Your task to perform on an android device: Search for sushi restaurants on Maps Image 0: 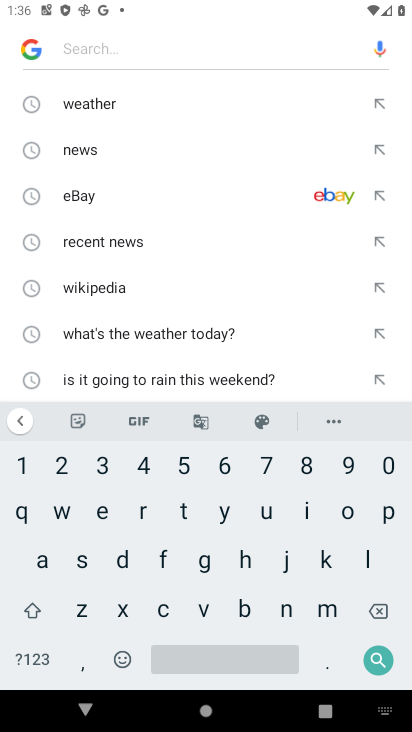
Step 0: press home button
Your task to perform on an android device: Search for sushi restaurants on Maps Image 1: 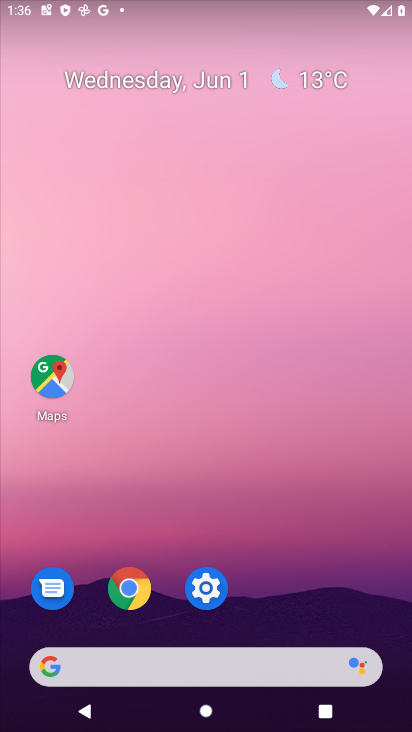
Step 1: click (42, 382)
Your task to perform on an android device: Search for sushi restaurants on Maps Image 2: 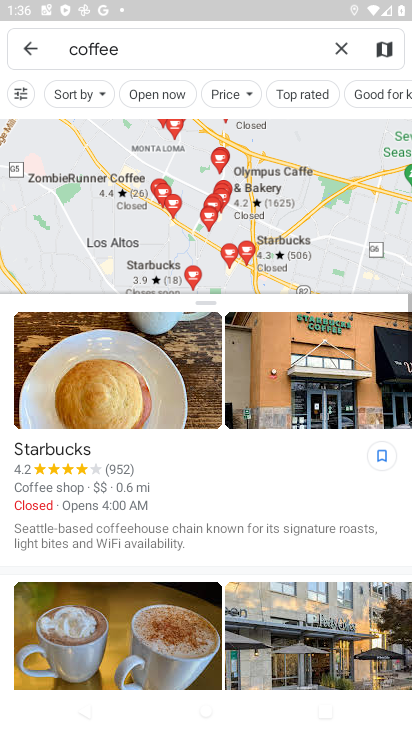
Step 2: click (248, 55)
Your task to perform on an android device: Search for sushi restaurants on Maps Image 3: 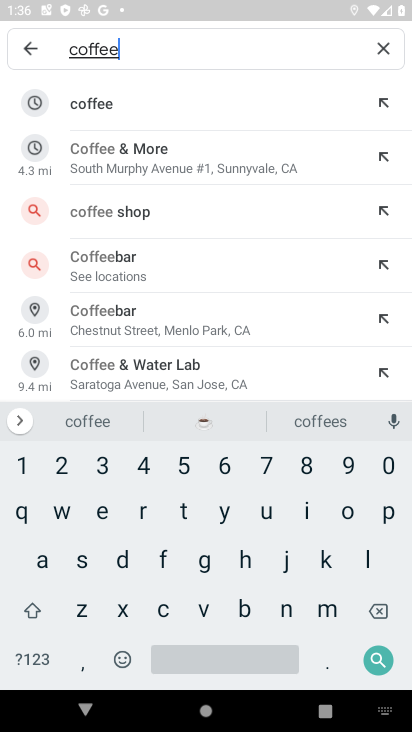
Step 3: click (377, 52)
Your task to perform on an android device: Search for sushi restaurants on Maps Image 4: 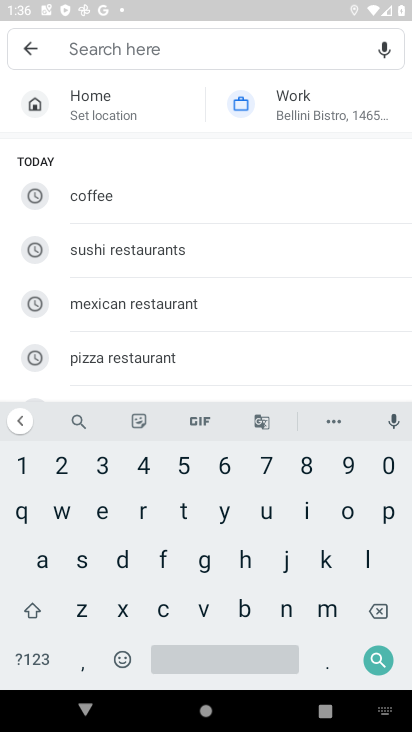
Step 4: click (136, 249)
Your task to perform on an android device: Search for sushi restaurants on Maps Image 5: 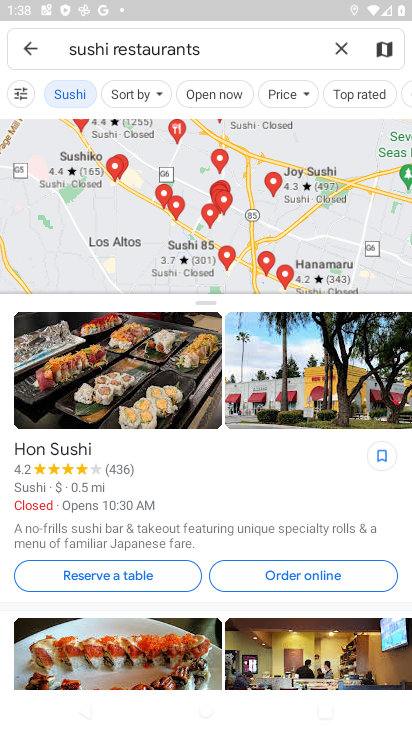
Step 5: task complete